Your task to perform on an android device: Show me the alarms in the clock app Image 0: 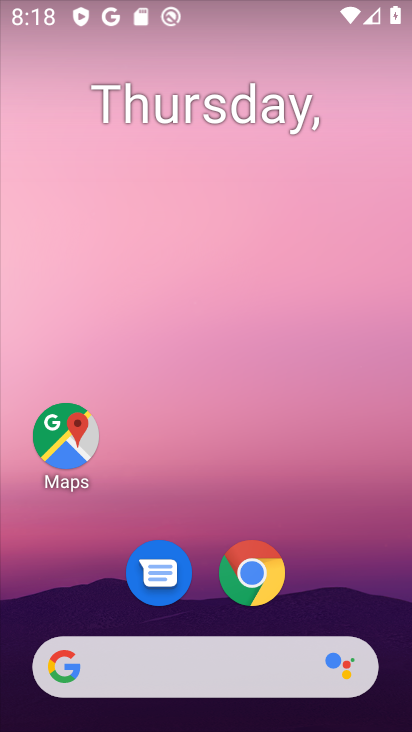
Step 0: drag from (395, 575) to (347, 3)
Your task to perform on an android device: Show me the alarms in the clock app Image 1: 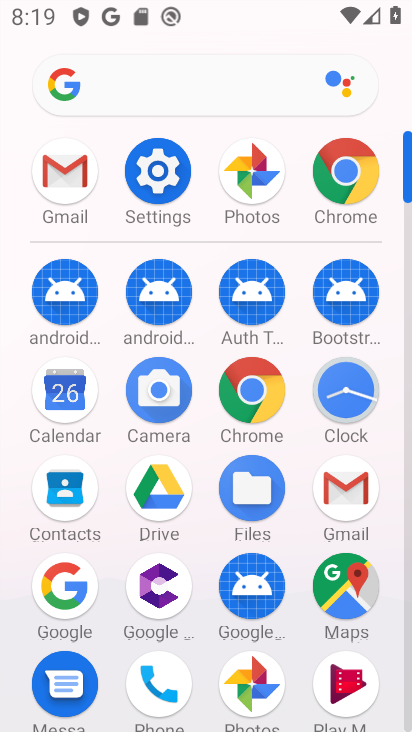
Step 1: click (347, 396)
Your task to perform on an android device: Show me the alarms in the clock app Image 2: 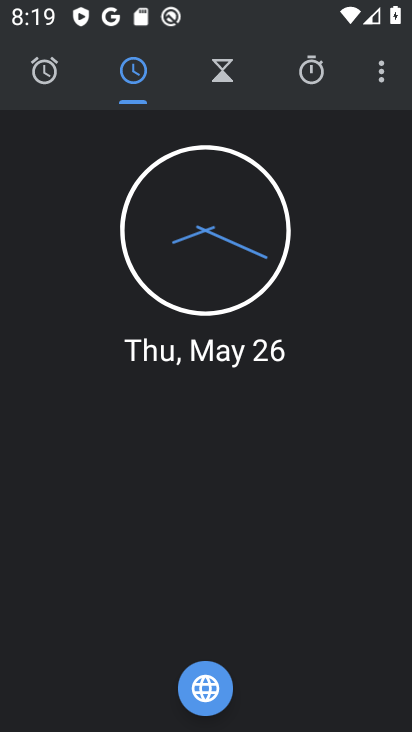
Step 2: click (32, 73)
Your task to perform on an android device: Show me the alarms in the clock app Image 3: 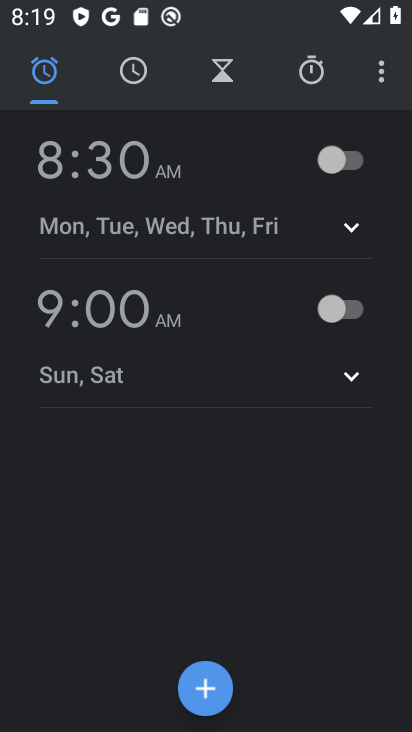
Step 3: task complete